Your task to perform on an android device: change the clock display to show seconds Image 0: 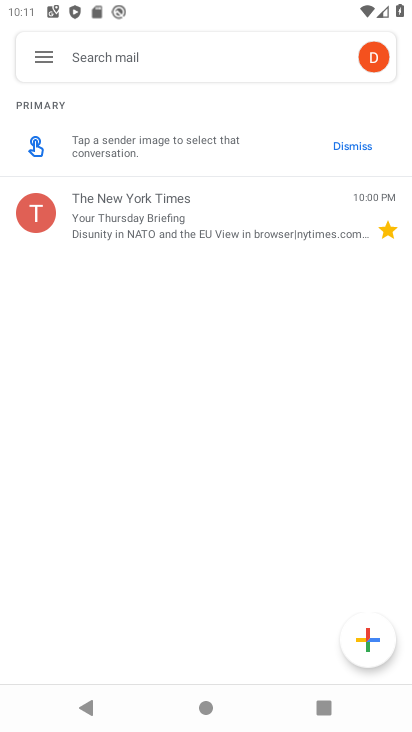
Step 0: press home button
Your task to perform on an android device: change the clock display to show seconds Image 1: 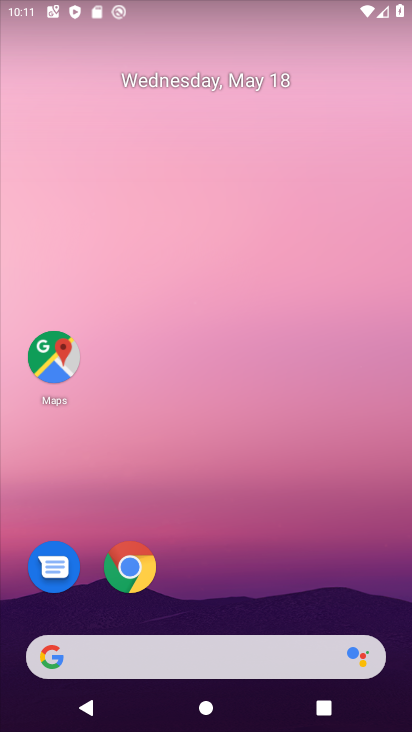
Step 1: drag from (293, 686) to (411, 164)
Your task to perform on an android device: change the clock display to show seconds Image 2: 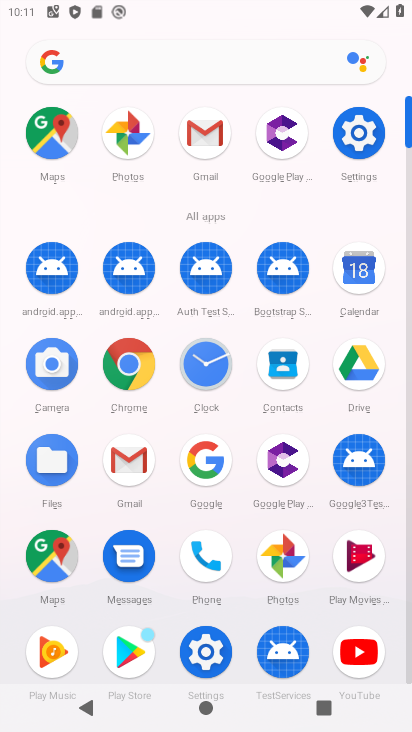
Step 2: click (212, 371)
Your task to perform on an android device: change the clock display to show seconds Image 3: 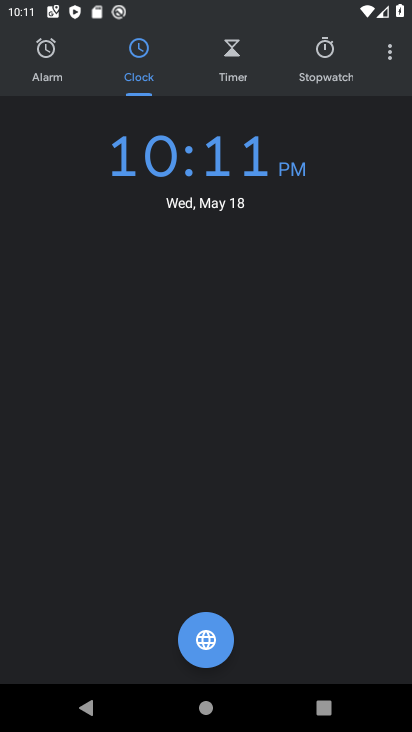
Step 3: click (383, 82)
Your task to perform on an android device: change the clock display to show seconds Image 4: 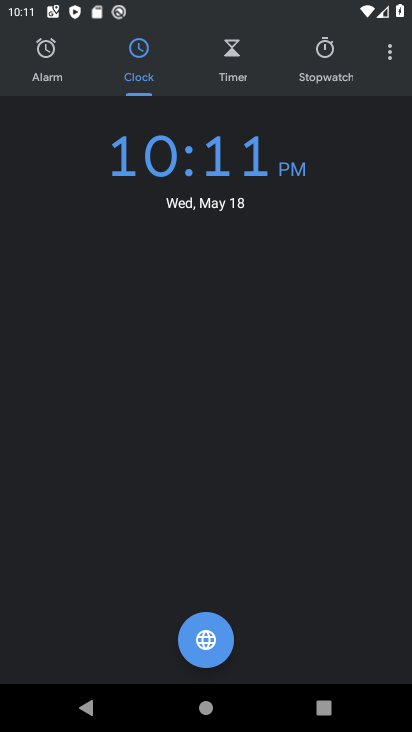
Step 4: click (378, 62)
Your task to perform on an android device: change the clock display to show seconds Image 5: 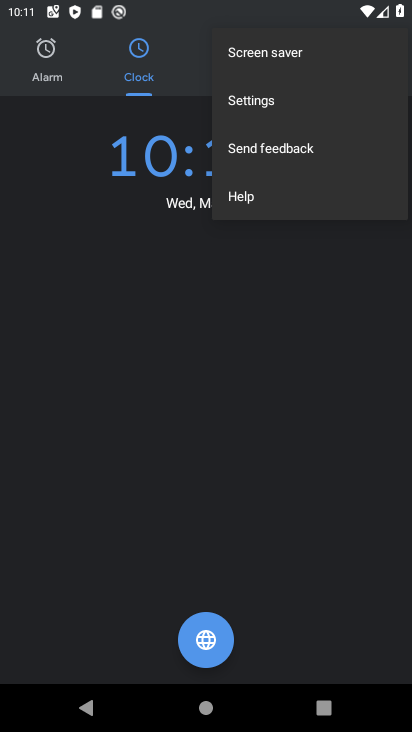
Step 5: click (277, 104)
Your task to perform on an android device: change the clock display to show seconds Image 6: 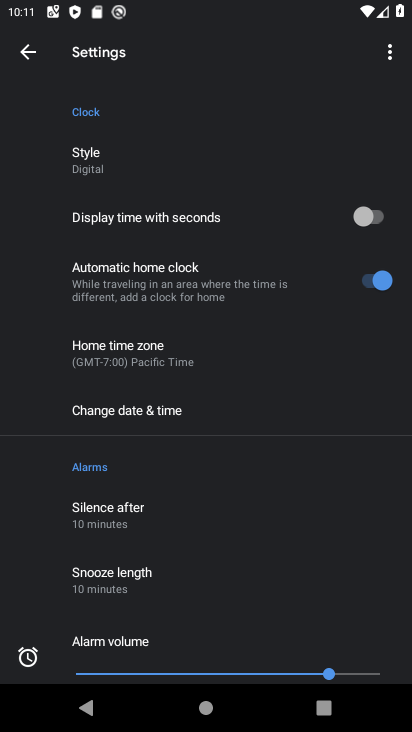
Step 6: click (350, 226)
Your task to perform on an android device: change the clock display to show seconds Image 7: 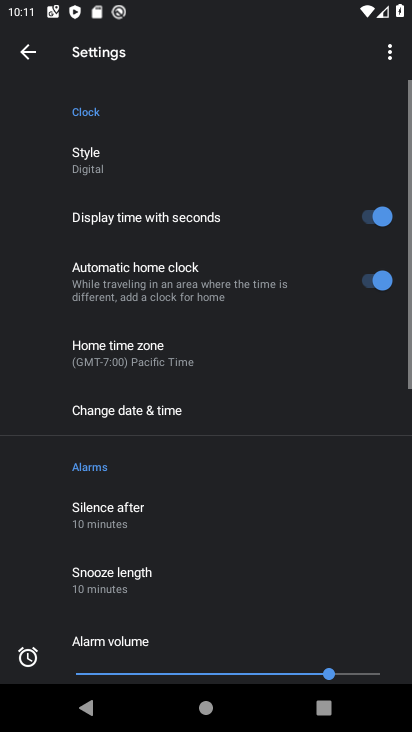
Step 7: task complete